Your task to perform on an android device: Show me popular videos on Youtube Image 0: 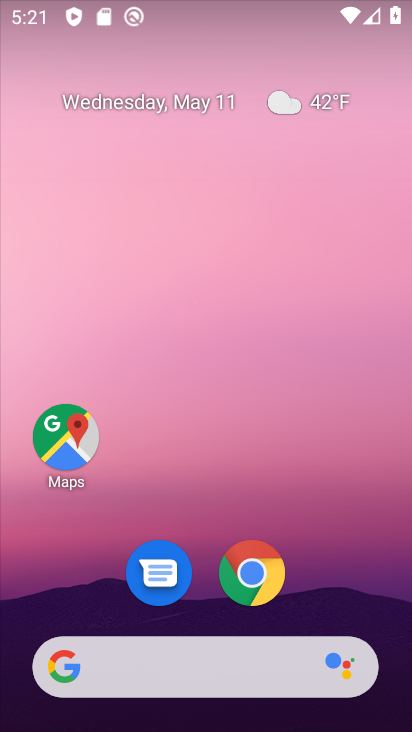
Step 0: drag from (296, 575) to (302, 20)
Your task to perform on an android device: Show me popular videos on Youtube Image 1: 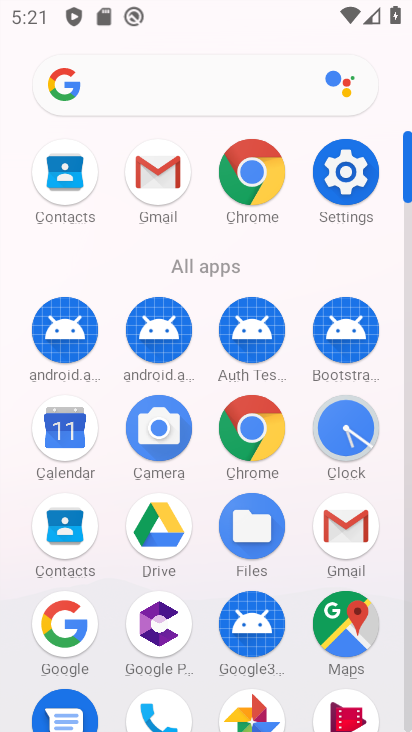
Step 1: drag from (300, 649) to (298, 297)
Your task to perform on an android device: Show me popular videos on Youtube Image 2: 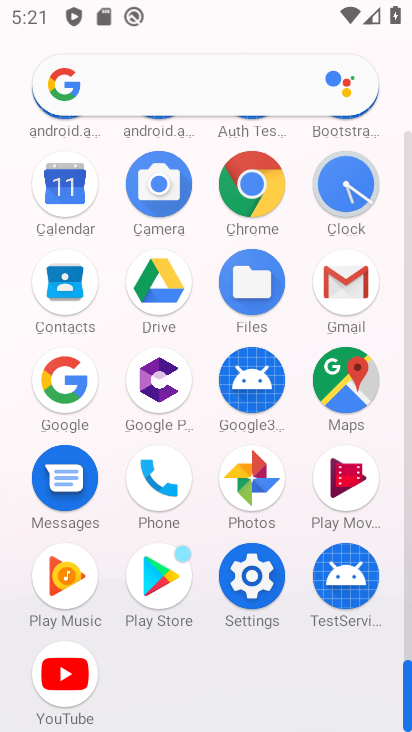
Step 2: click (66, 691)
Your task to perform on an android device: Show me popular videos on Youtube Image 3: 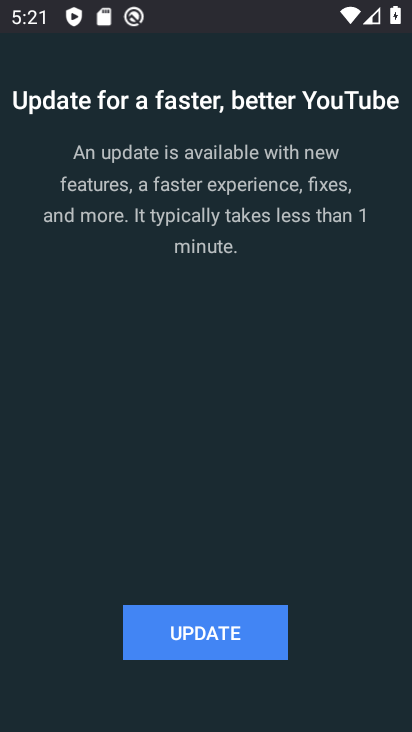
Step 3: click (188, 645)
Your task to perform on an android device: Show me popular videos on Youtube Image 4: 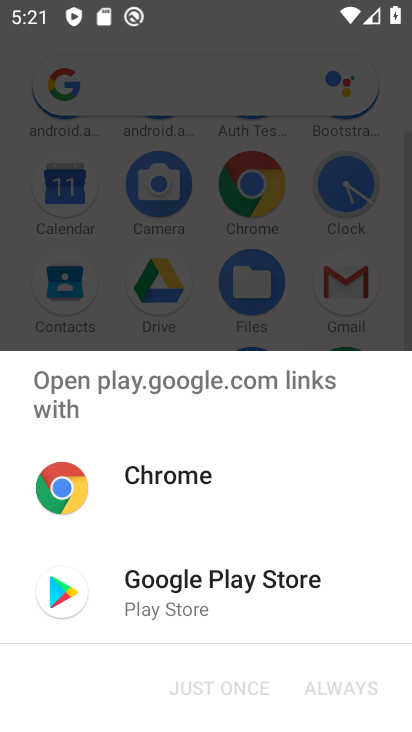
Step 4: click (180, 593)
Your task to perform on an android device: Show me popular videos on Youtube Image 5: 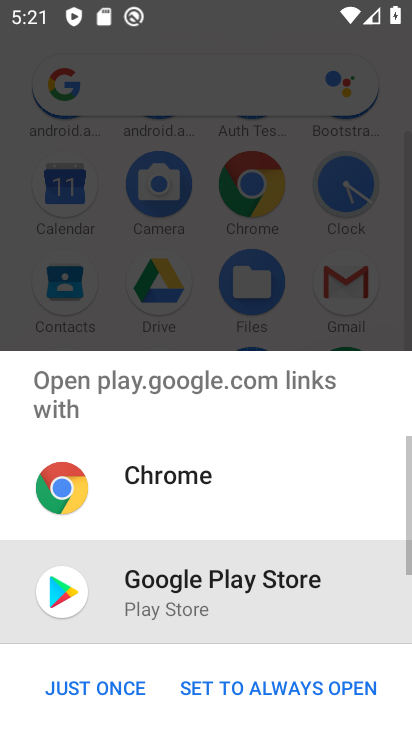
Step 5: click (272, 693)
Your task to perform on an android device: Show me popular videos on Youtube Image 6: 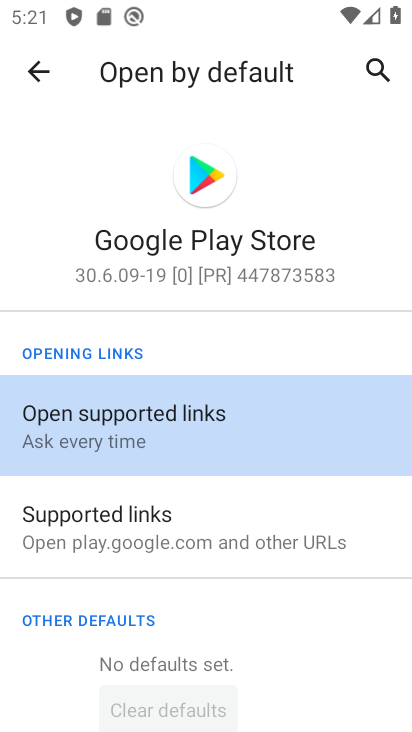
Step 6: click (34, 73)
Your task to perform on an android device: Show me popular videos on Youtube Image 7: 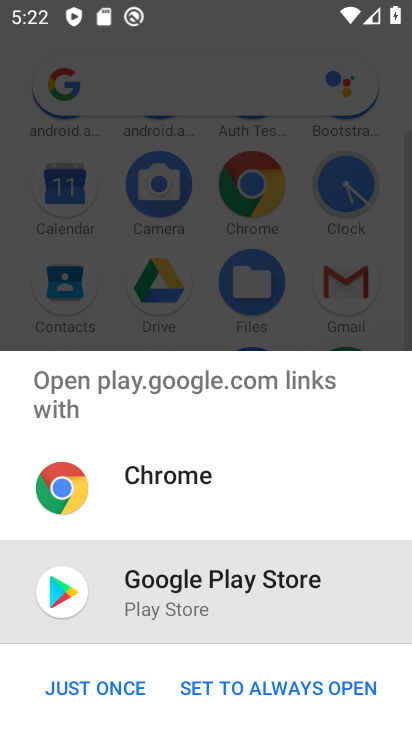
Step 7: click (270, 692)
Your task to perform on an android device: Show me popular videos on Youtube Image 8: 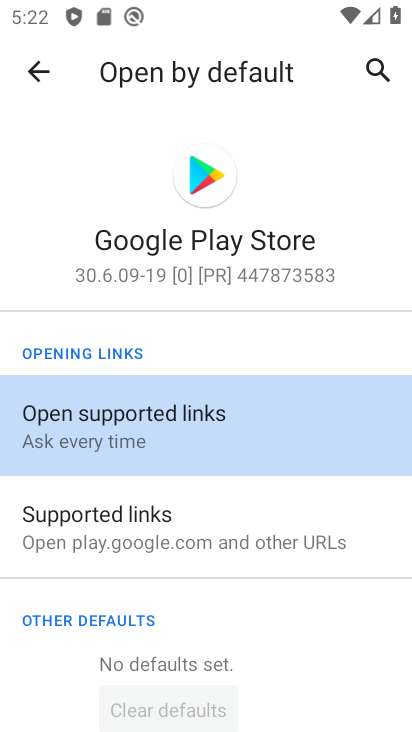
Step 8: click (173, 444)
Your task to perform on an android device: Show me popular videos on Youtube Image 9: 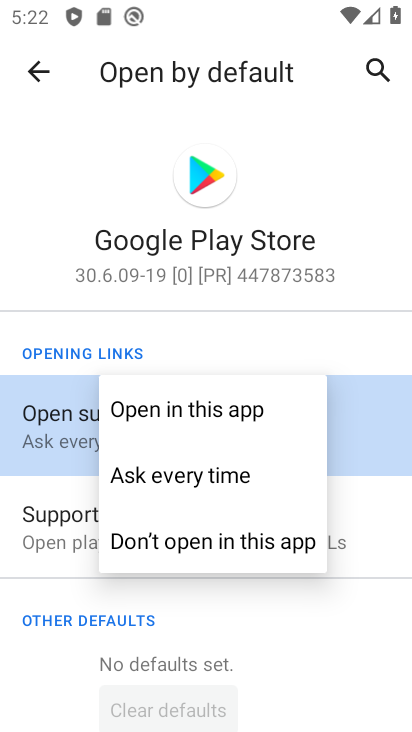
Step 9: click (171, 405)
Your task to perform on an android device: Show me popular videos on Youtube Image 10: 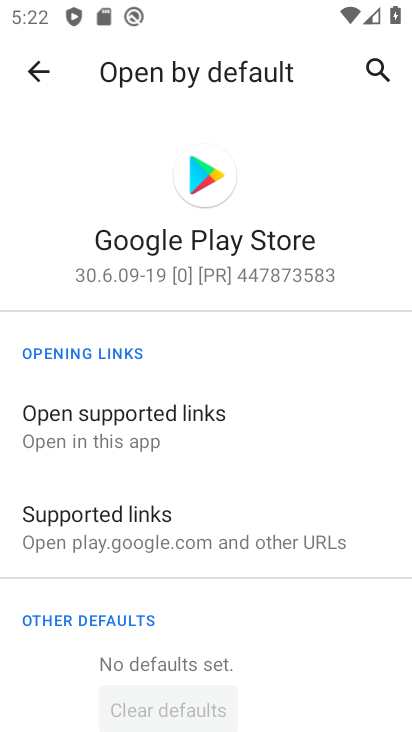
Step 10: click (34, 78)
Your task to perform on an android device: Show me popular videos on Youtube Image 11: 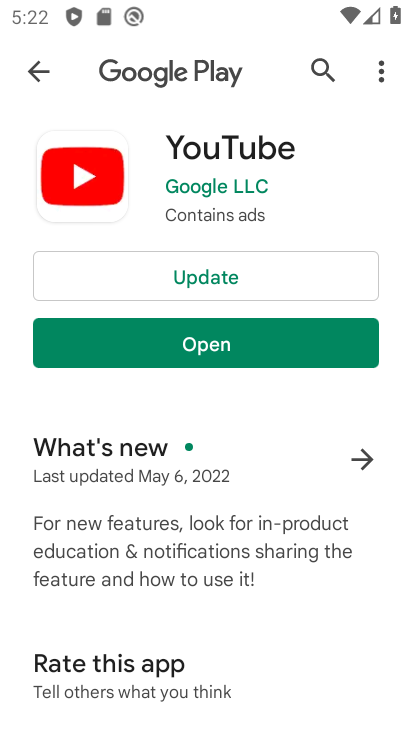
Step 11: click (176, 264)
Your task to perform on an android device: Show me popular videos on Youtube Image 12: 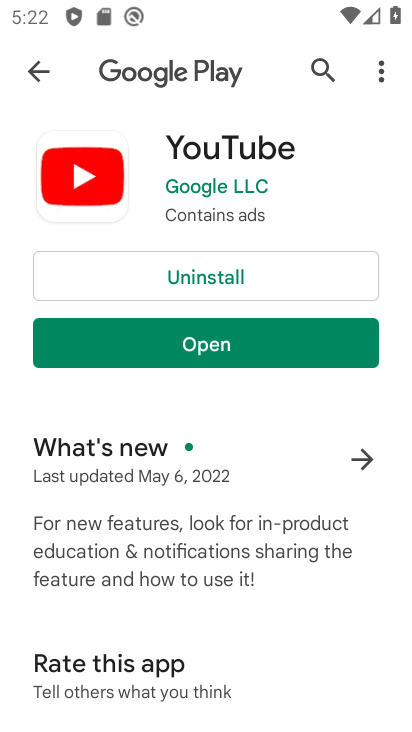
Step 12: click (216, 352)
Your task to perform on an android device: Show me popular videos on Youtube Image 13: 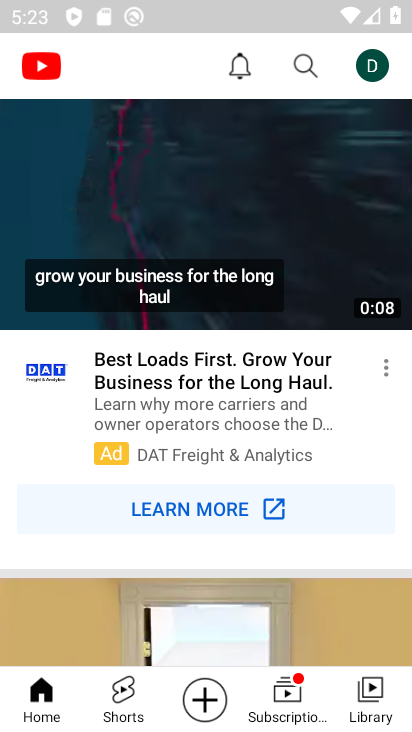
Step 13: task complete